Your task to perform on an android device: Set the phone to "Do not disturb". Image 0: 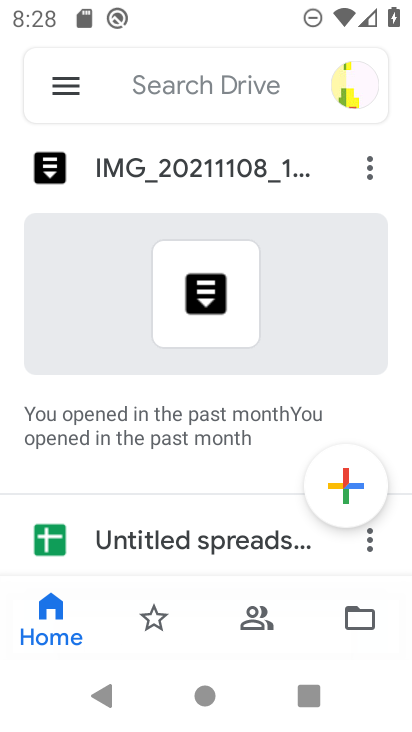
Step 0: press back button
Your task to perform on an android device: Set the phone to "Do not disturb". Image 1: 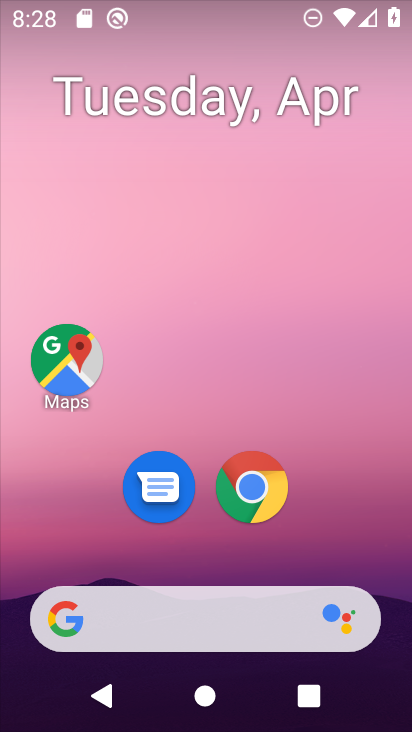
Step 1: drag from (195, 582) to (193, 103)
Your task to perform on an android device: Set the phone to "Do not disturb". Image 2: 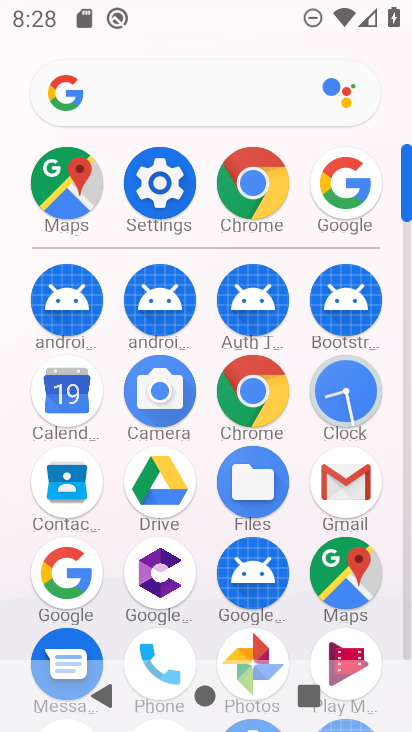
Step 2: click (156, 190)
Your task to perform on an android device: Set the phone to "Do not disturb". Image 3: 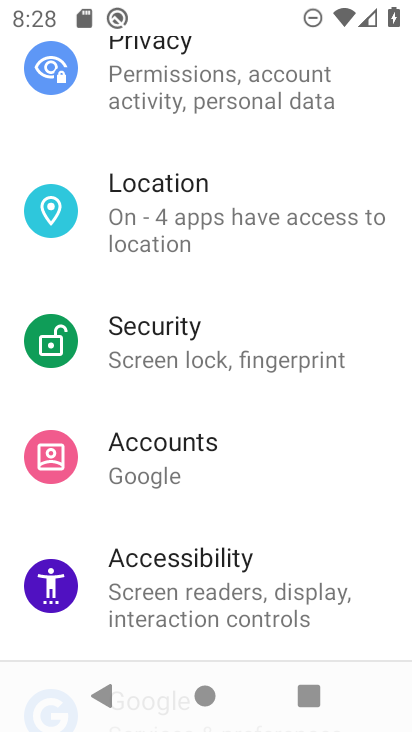
Step 3: drag from (237, 97) to (284, 463)
Your task to perform on an android device: Set the phone to "Do not disturb". Image 4: 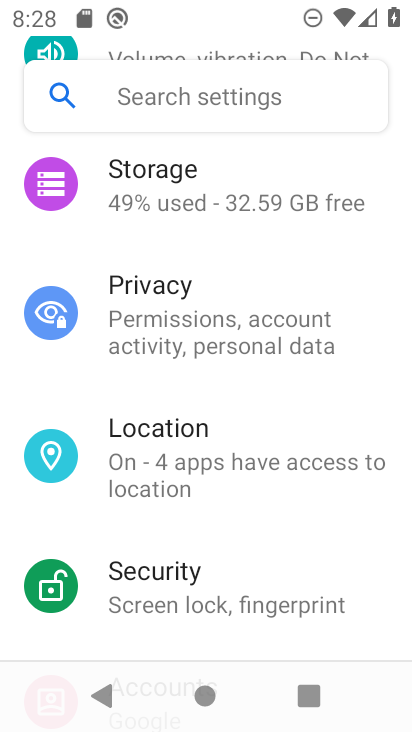
Step 4: drag from (286, 189) to (282, 541)
Your task to perform on an android device: Set the phone to "Do not disturb". Image 5: 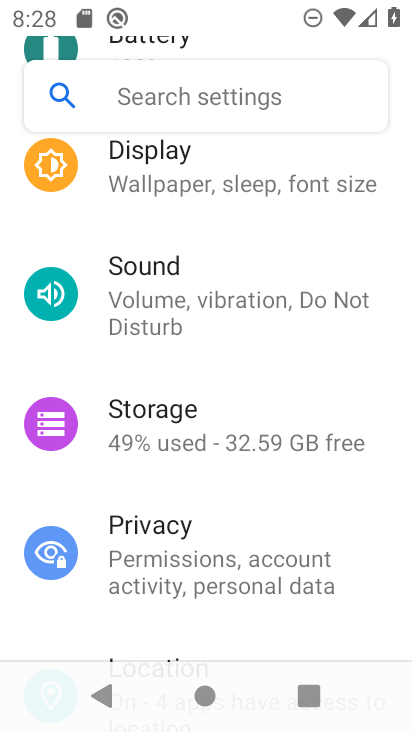
Step 5: click (252, 309)
Your task to perform on an android device: Set the phone to "Do not disturb". Image 6: 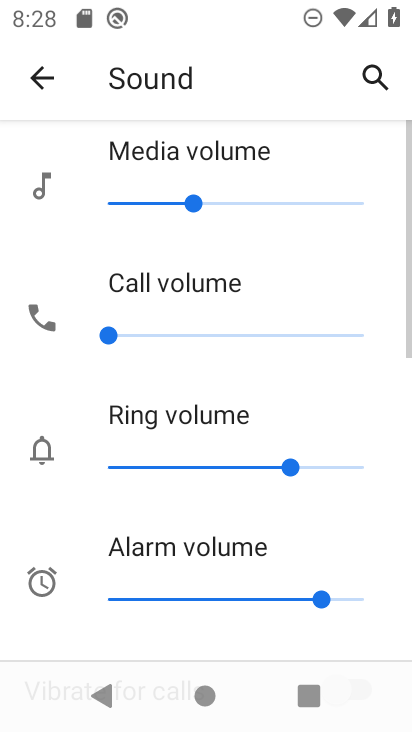
Step 6: drag from (304, 632) to (276, 249)
Your task to perform on an android device: Set the phone to "Do not disturb". Image 7: 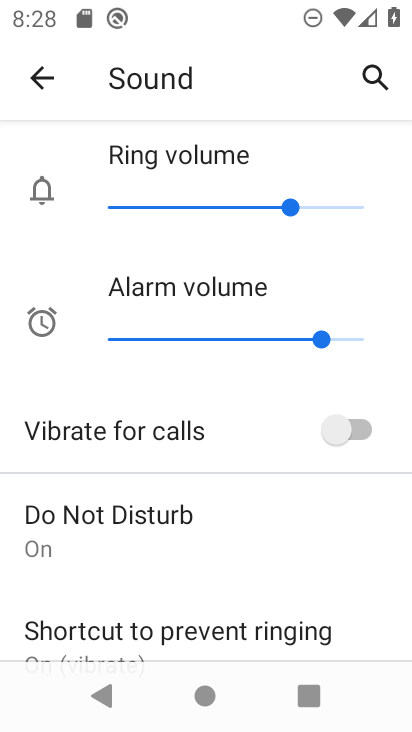
Step 7: drag from (231, 602) to (187, 255)
Your task to perform on an android device: Set the phone to "Do not disturb". Image 8: 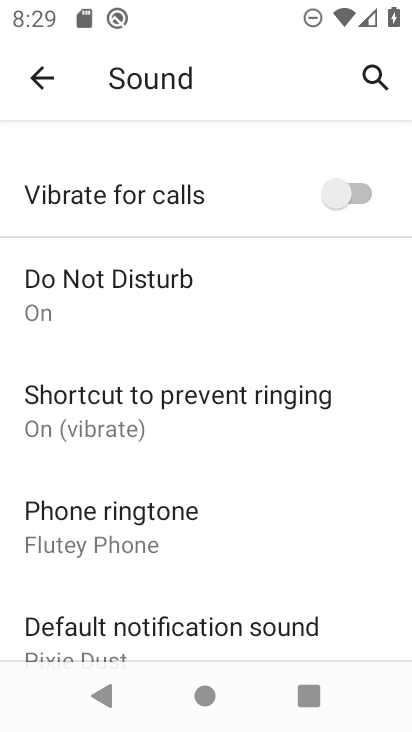
Step 8: click (115, 280)
Your task to perform on an android device: Set the phone to "Do not disturb". Image 9: 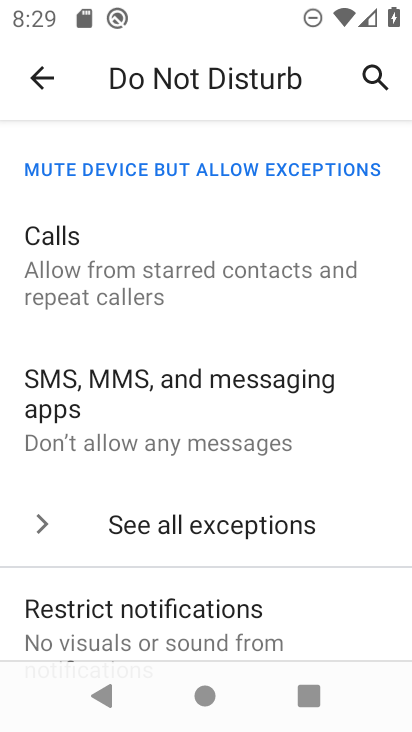
Step 9: task complete